Your task to perform on an android device: turn notification dots on Image 0: 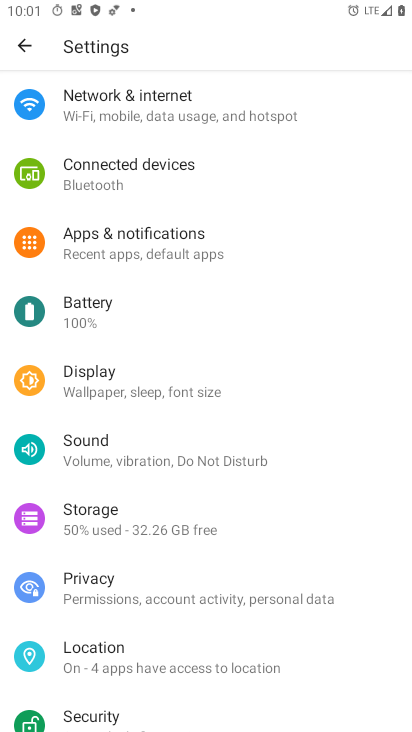
Step 0: click (26, 42)
Your task to perform on an android device: turn notification dots on Image 1: 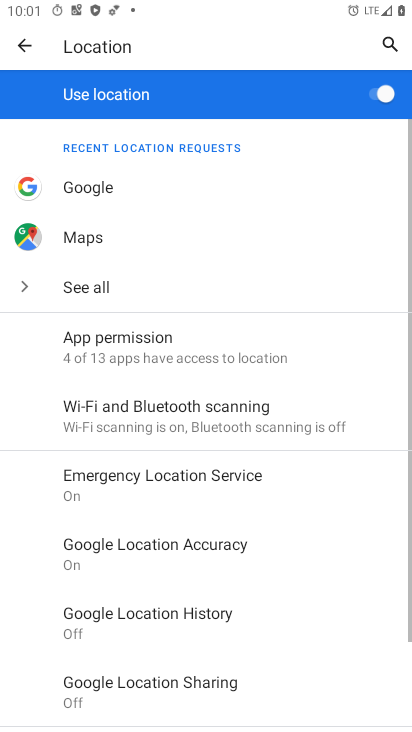
Step 1: press home button
Your task to perform on an android device: turn notification dots on Image 2: 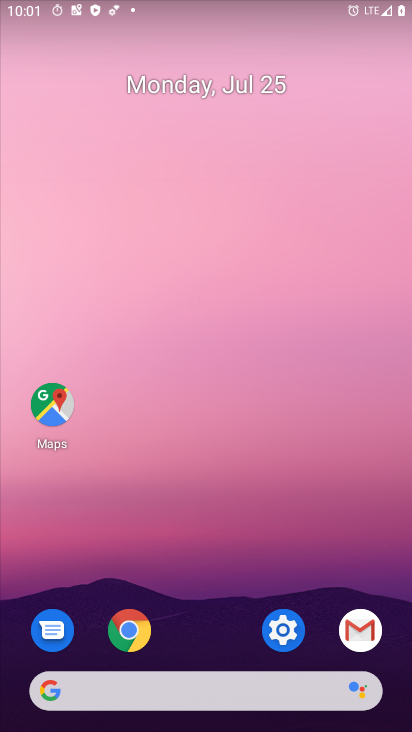
Step 2: click (276, 637)
Your task to perform on an android device: turn notification dots on Image 3: 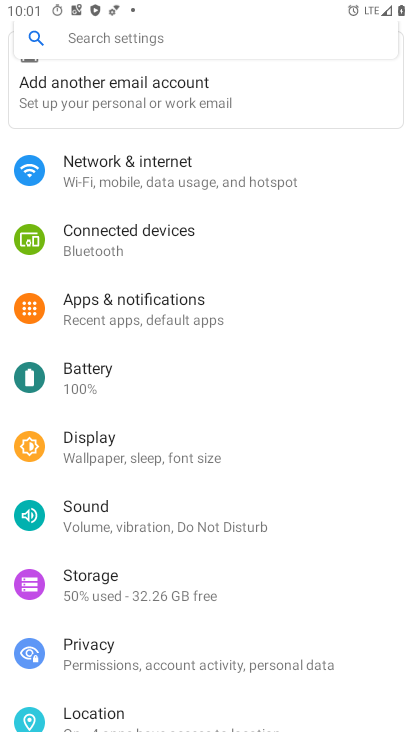
Step 3: click (97, 44)
Your task to perform on an android device: turn notification dots on Image 4: 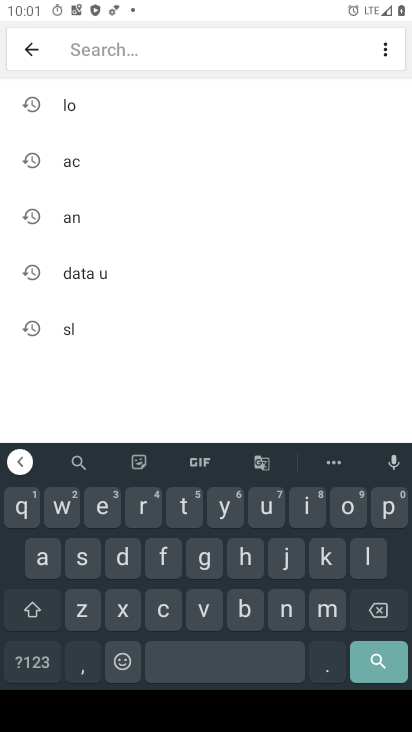
Step 4: click (292, 622)
Your task to perform on an android device: turn notification dots on Image 5: 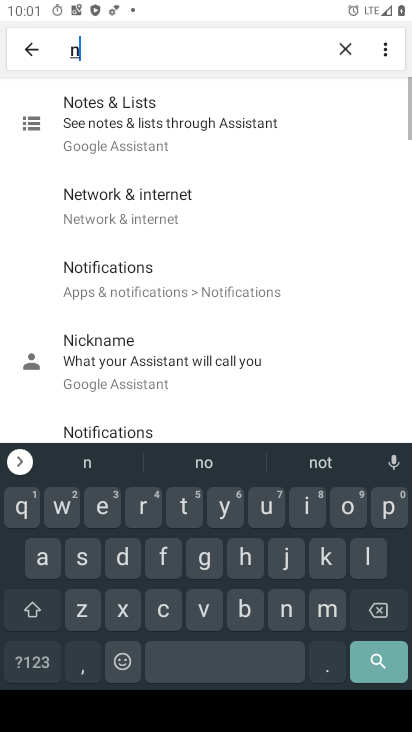
Step 5: click (344, 516)
Your task to perform on an android device: turn notification dots on Image 6: 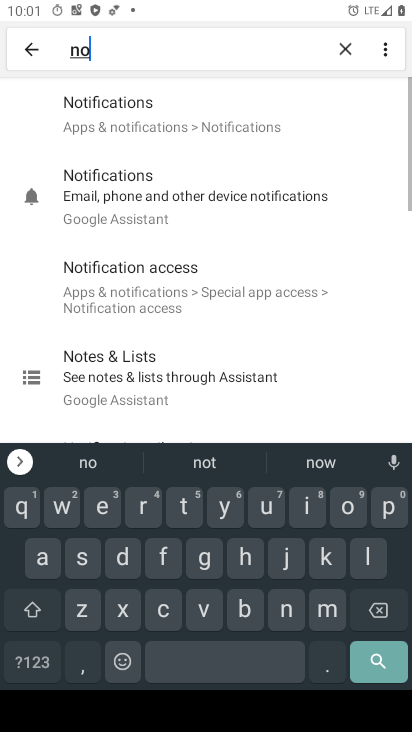
Step 6: click (143, 108)
Your task to perform on an android device: turn notification dots on Image 7: 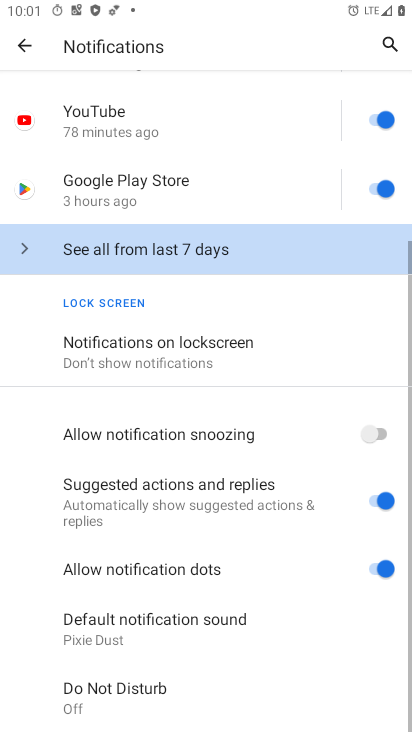
Step 7: click (343, 567)
Your task to perform on an android device: turn notification dots on Image 8: 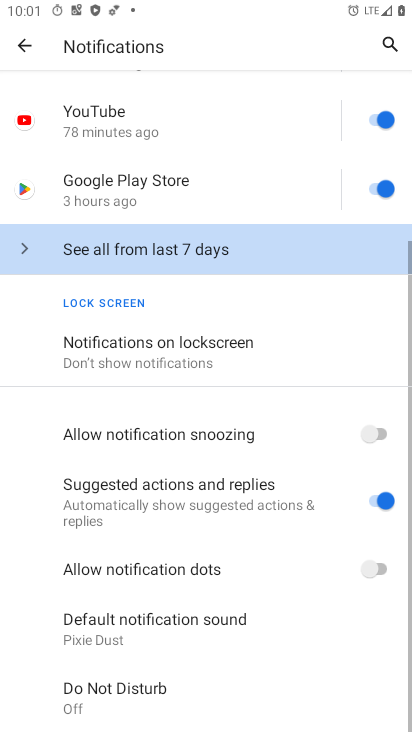
Step 8: click (343, 567)
Your task to perform on an android device: turn notification dots on Image 9: 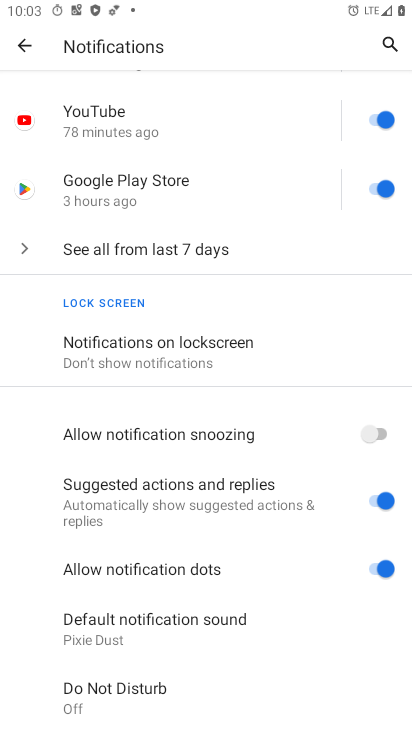
Step 9: task complete